Your task to perform on an android device: turn off smart reply in the gmail app Image 0: 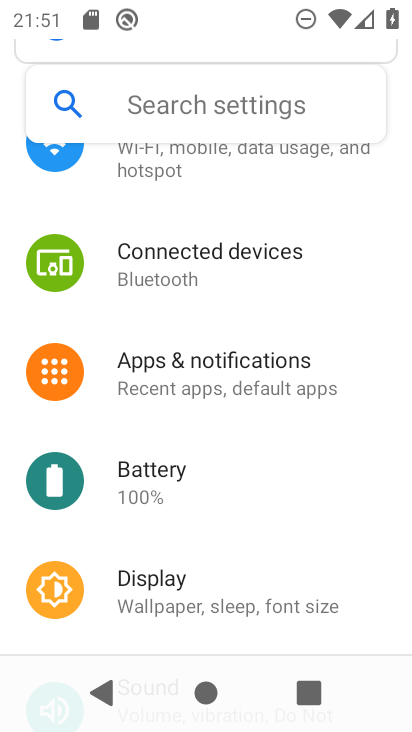
Step 0: press home button
Your task to perform on an android device: turn off smart reply in the gmail app Image 1: 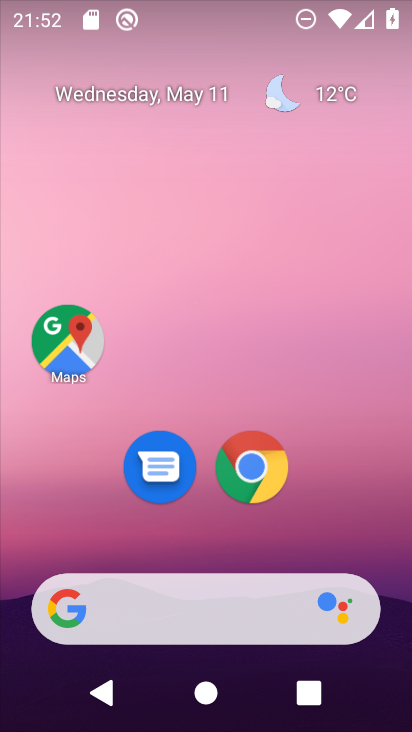
Step 1: drag from (205, 540) to (211, 46)
Your task to perform on an android device: turn off smart reply in the gmail app Image 2: 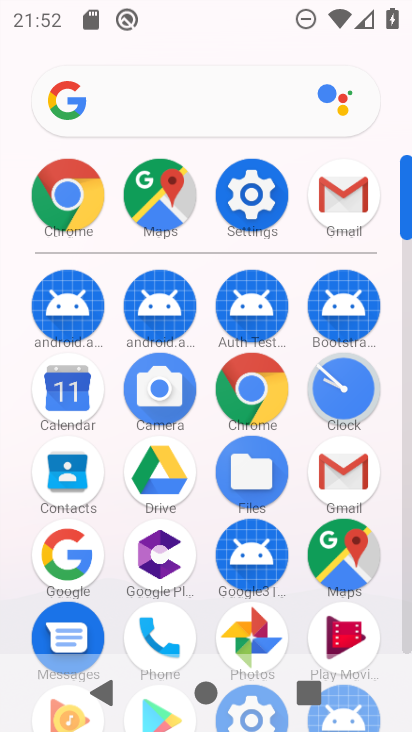
Step 2: click (339, 465)
Your task to perform on an android device: turn off smart reply in the gmail app Image 3: 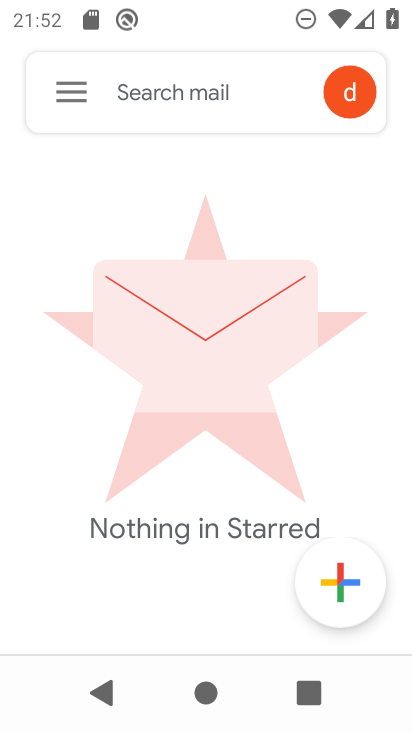
Step 3: click (65, 90)
Your task to perform on an android device: turn off smart reply in the gmail app Image 4: 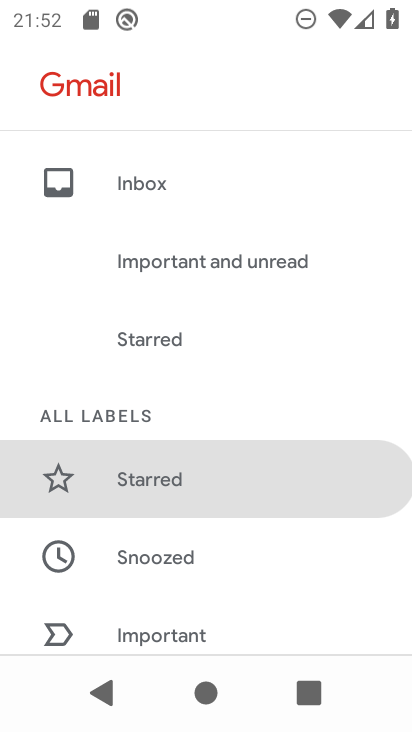
Step 4: drag from (185, 608) to (237, 141)
Your task to perform on an android device: turn off smart reply in the gmail app Image 5: 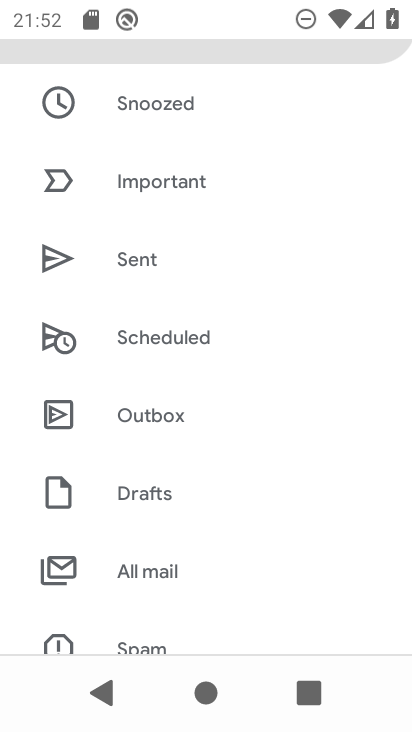
Step 5: drag from (174, 559) to (220, 136)
Your task to perform on an android device: turn off smart reply in the gmail app Image 6: 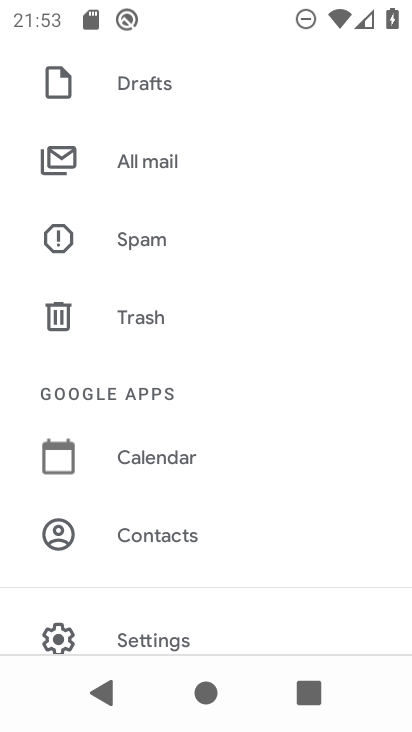
Step 6: drag from (153, 594) to (182, 187)
Your task to perform on an android device: turn off smart reply in the gmail app Image 7: 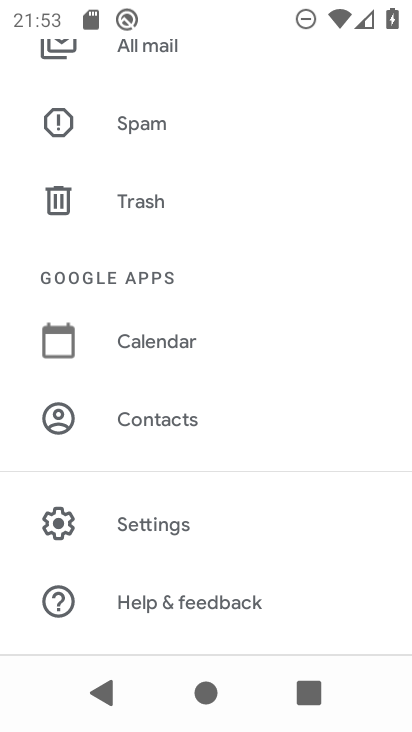
Step 7: click (128, 515)
Your task to perform on an android device: turn off smart reply in the gmail app Image 8: 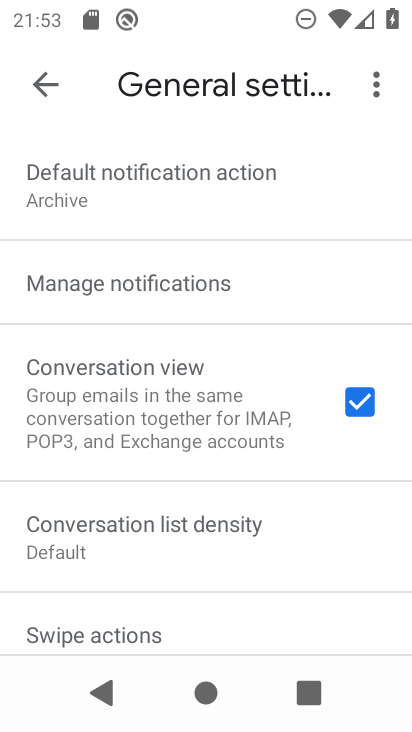
Step 8: drag from (176, 589) to (193, 181)
Your task to perform on an android device: turn off smart reply in the gmail app Image 9: 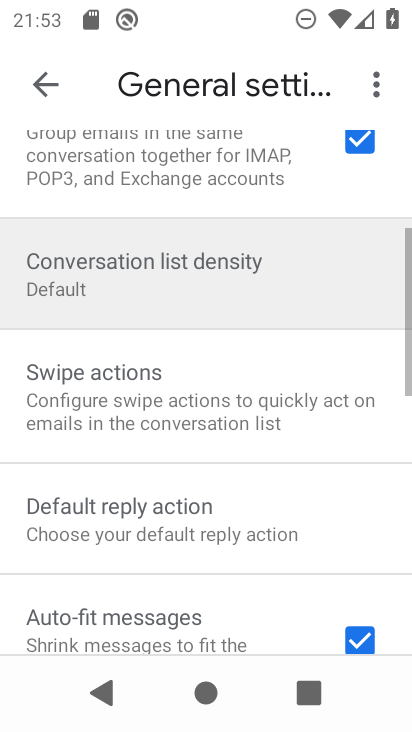
Step 9: click (193, 81)
Your task to perform on an android device: turn off smart reply in the gmail app Image 10: 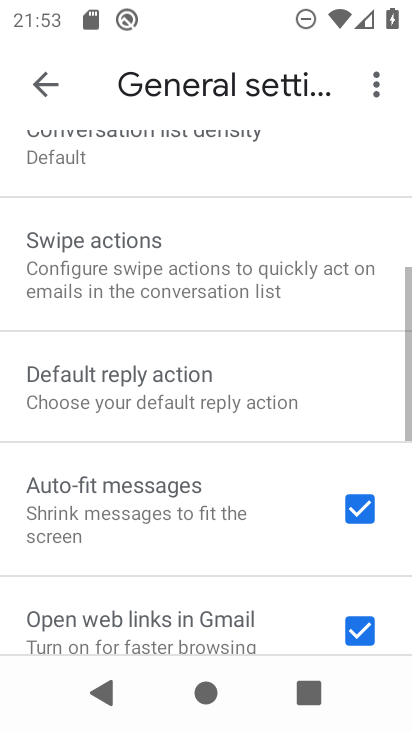
Step 10: drag from (201, 593) to (267, 5)
Your task to perform on an android device: turn off smart reply in the gmail app Image 11: 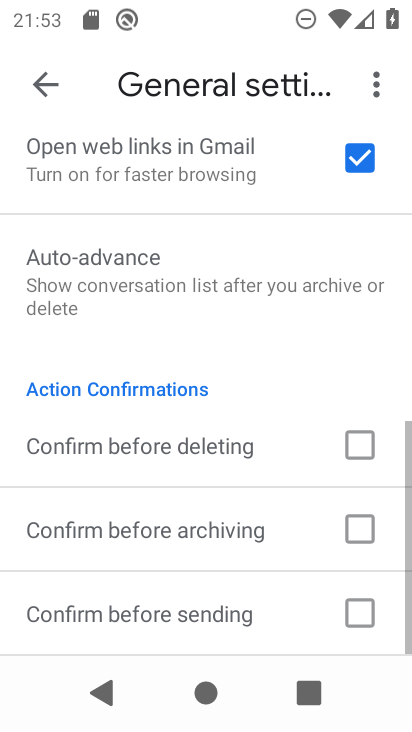
Step 11: drag from (196, 577) to (196, 99)
Your task to perform on an android device: turn off smart reply in the gmail app Image 12: 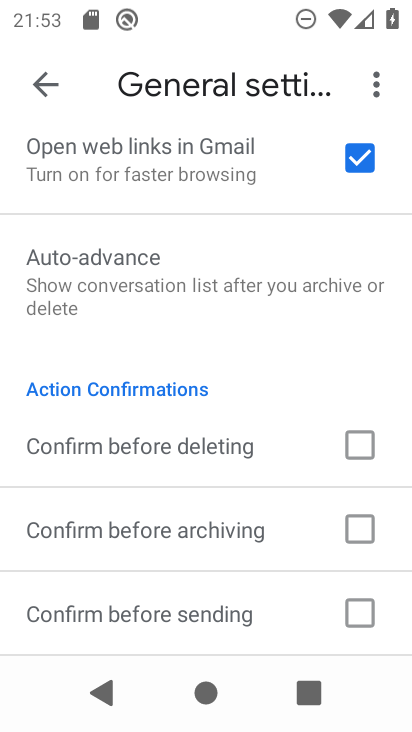
Step 12: drag from (183, 586) to (196, 204)
Your task to perform on an android device: turn off smart reply in the gmail app Image 13: 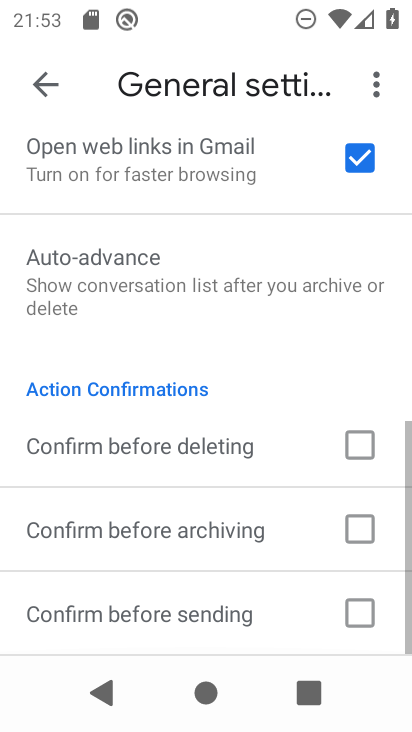
Step 13: drag from (197, 214) to (223, 724)
Your task to perform on an android device: turn off smart reply in the gmail app Image 14: 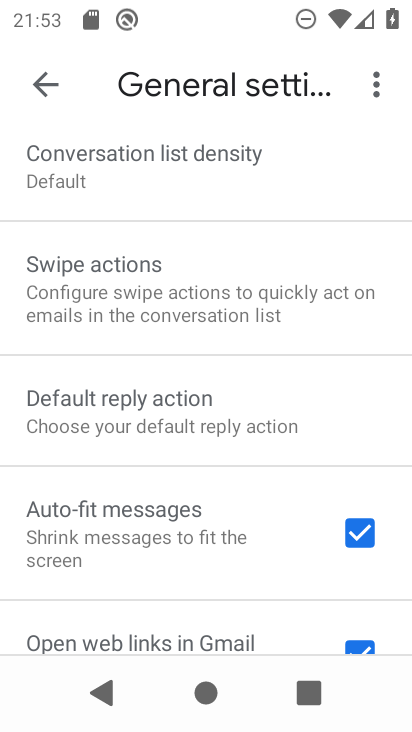
Step 14: drag from (183, 238) to (228, 658)
Your task to perform on an android device: turn off smart reply in the gmail app Image 15: 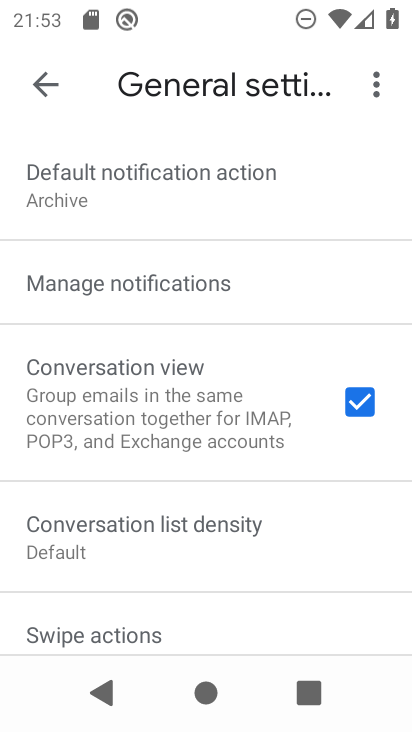
Step 15: click (173, 208)
Your task to perform on an android device: turn off smart reply in the gmail app Image 16: 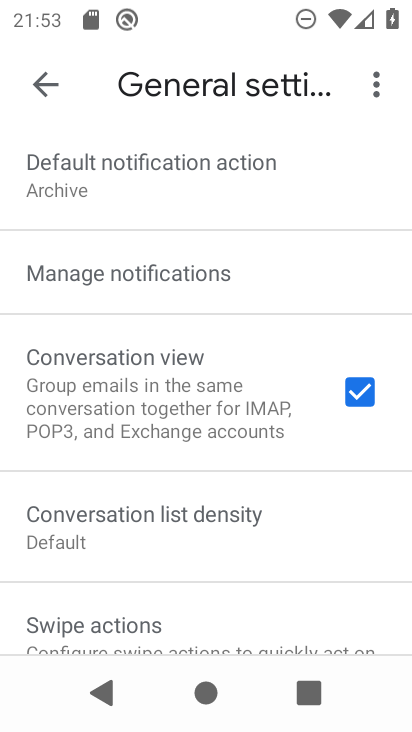
Step 16: click (35, 82)
Your task to perform on an android device: turn off smart reply in the gmail app Image 17: 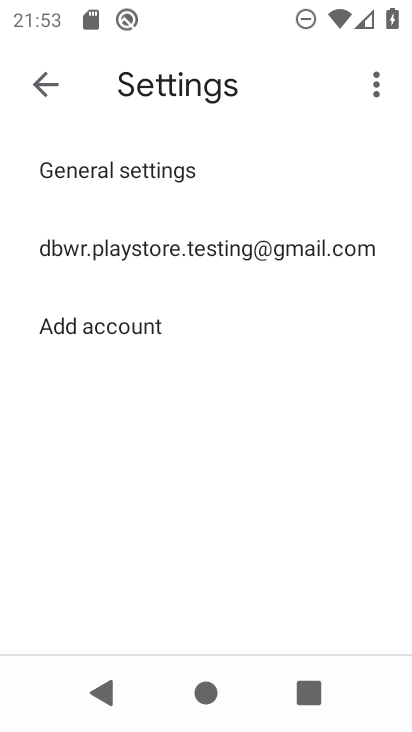
Step 17: click (138, 236)
Your task to perform on an android device: turn off smart reply in the gmail app Image 18: 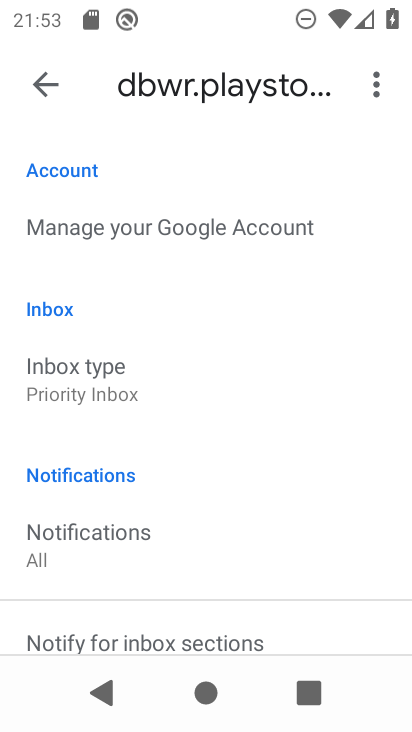
Step 18: task complete